Your task to perform on an android device: Go to Reddit.com Image 0: 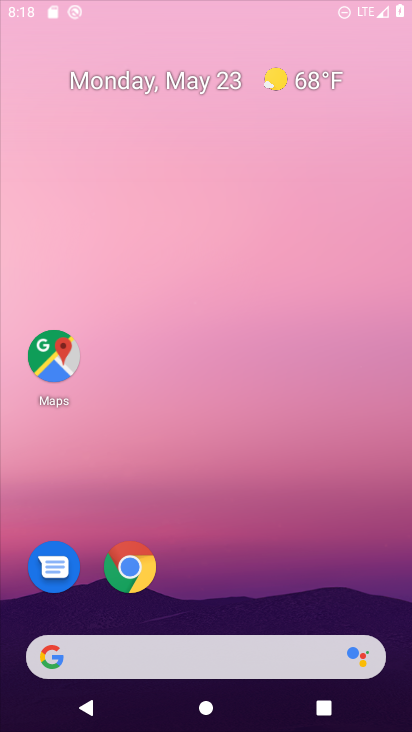
Step 0: click (378, 82)
Your task to perform on an android device: Go to Reddit.com Image 1: 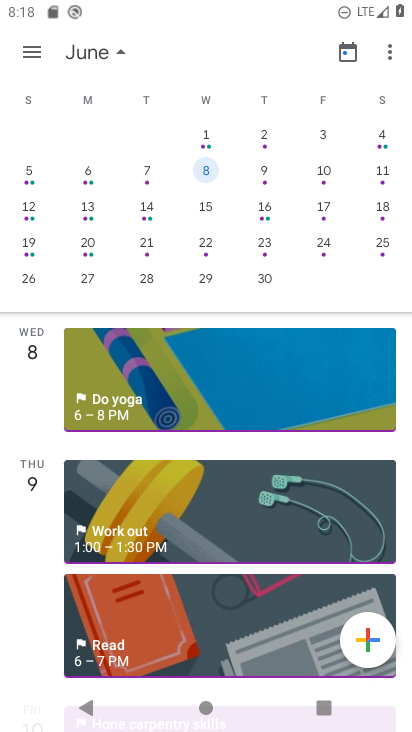
Step 1: press home button
Your task to perform on an android device: Go to Reddit.com Image 2: 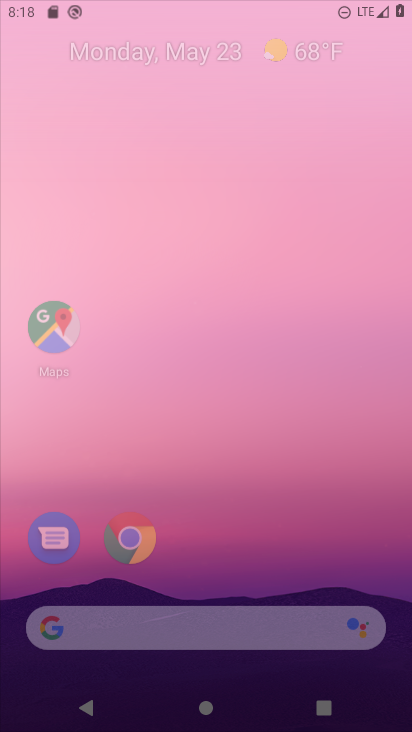
Step 2: drag from (231, 616) to (409, 52)
Your task to perform on an android device: Go to Reddit.com Image 3: 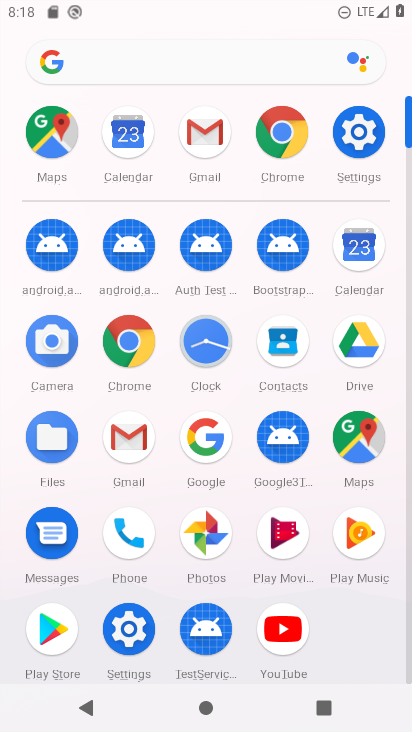
Step 3: click (126, 53)
Your task to perform on an android device: Go to Reddit.com Image 4: 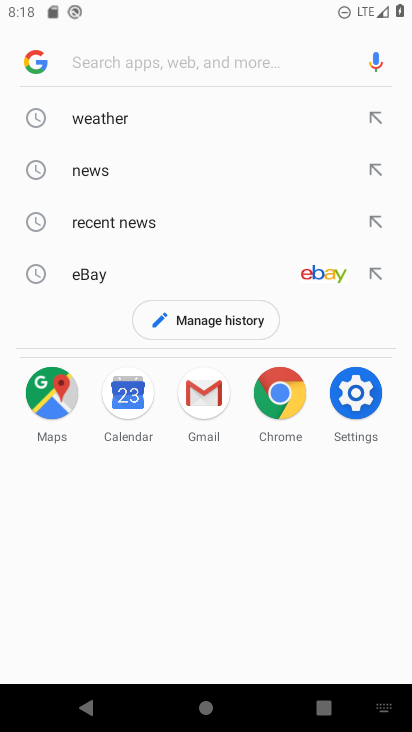
Step 4: type "reddit.com"
Your task to perform on an android device: Go to Reddit.com Image 5: 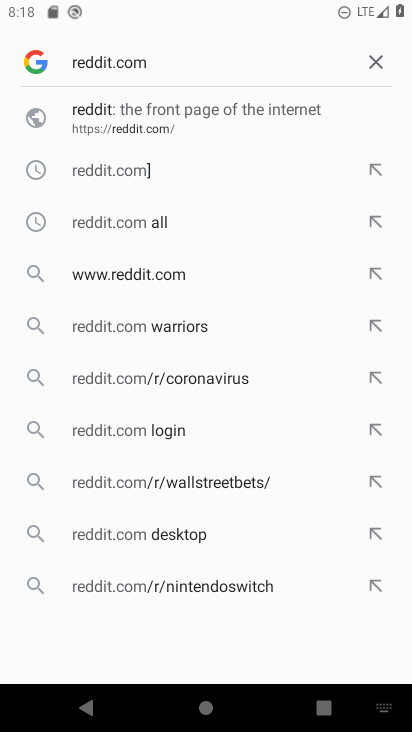
Step 5: click (160, 131)
Your task to perform on an android device: Go to Reddit.com Image 6: 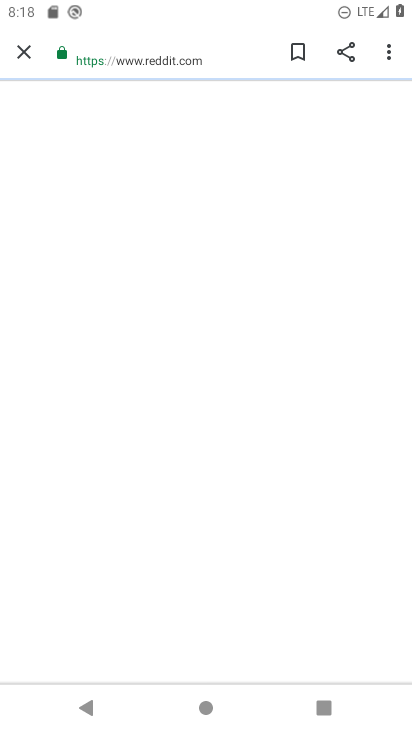
Step 6: task complete